Your task to perform on an android device: Open settings on Google Maps Image 0: 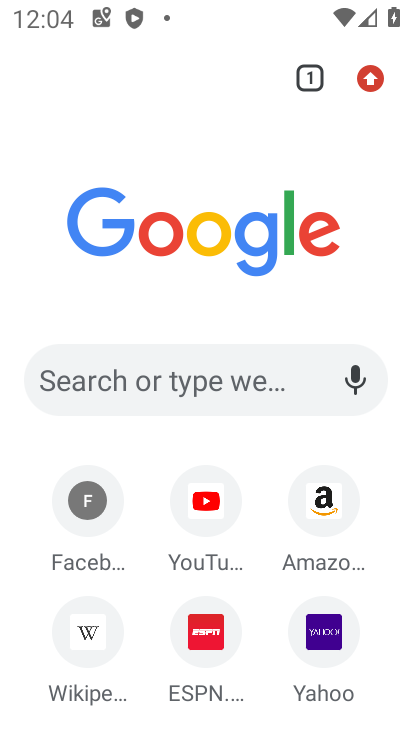
Step 0: press home button
Your task to perform on an android device: Open settings on Google Maps Image 1: 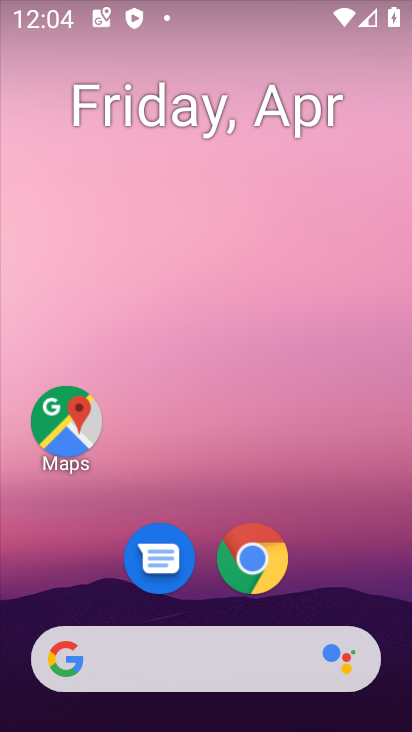
Step 1: drag from (399, 637) to (287, 25)
Your task to perform on an android device: Open settings on Google Maps Image 2: 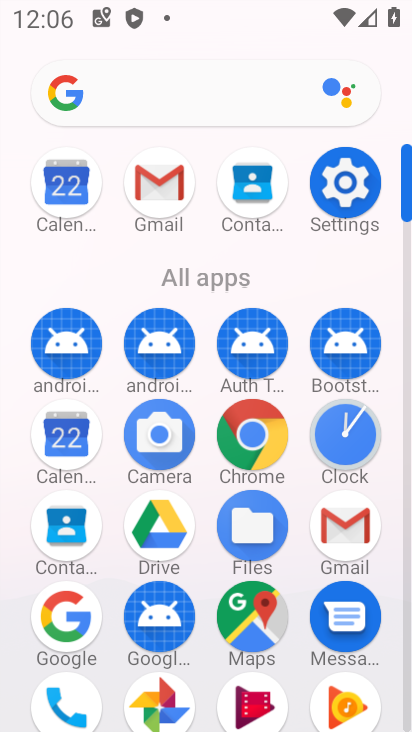
Step 2: click (252, 609)
Your task to perform on an android device: Open settings on Google Maps Image 3: 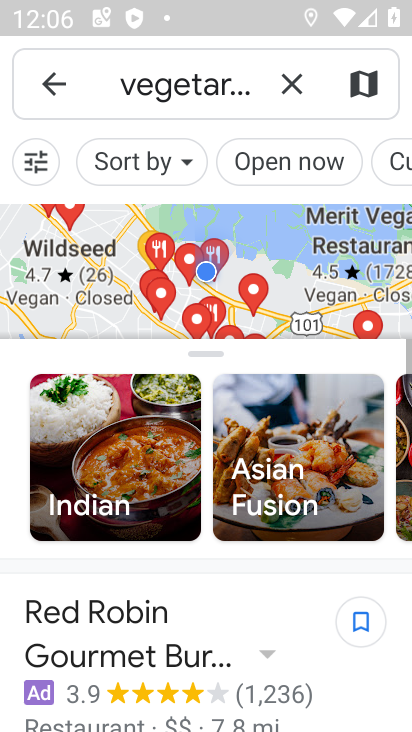
Step 3: click (299, 80)
Your task to perform on an android device: Open settings on Google Maps Image 4: 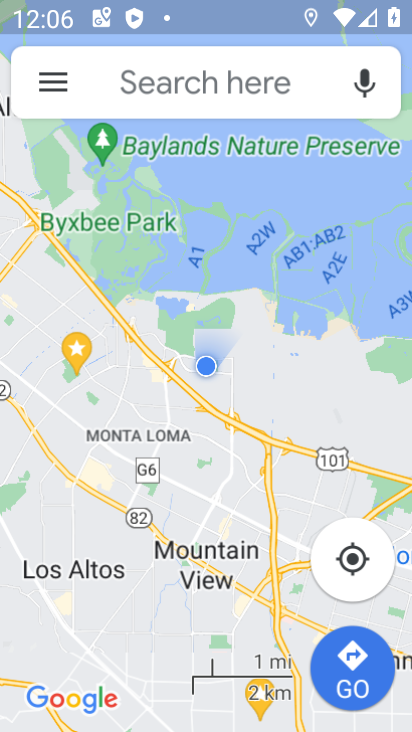
Step 4: click (36, 78)
Your task to perform on an android device: Open settings on Google Maps Image 5: 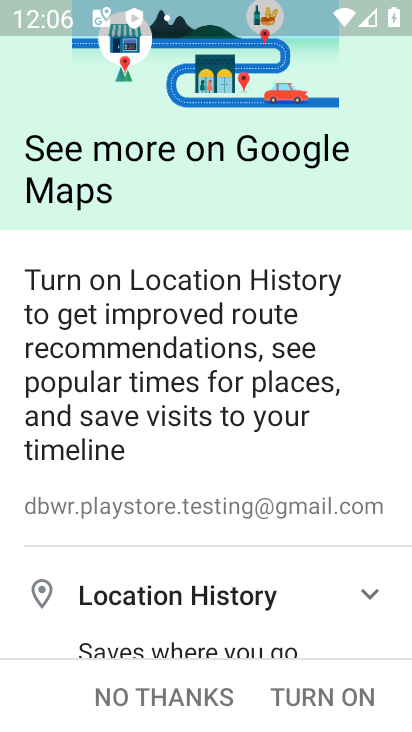
Step 5: click (148, 706)
Your task to perform on an android device: Open settings on Google Maps Image 6: 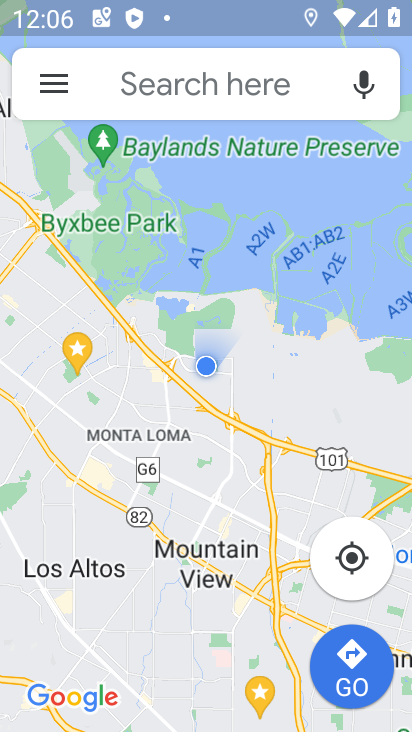
Step 6: click (55, 76)
Your task to perform on an android device: Open settings on Google Maps Image 7: 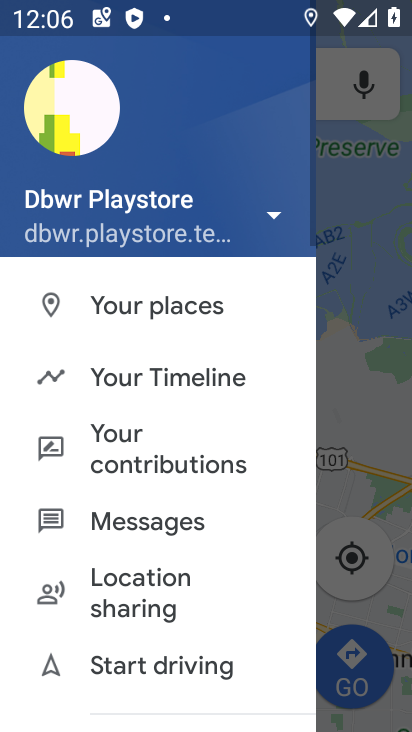
Step 7: drag from (113, 674) to (165, 140)
Your task to perform on an android device: Open settings on Google Maps Image 8: 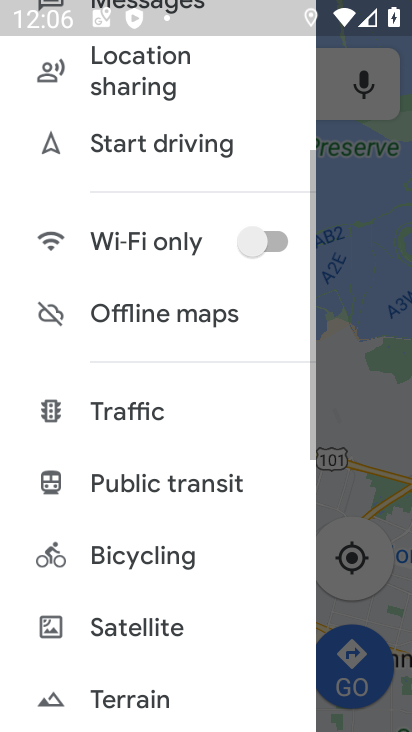
Step 8: drag from (160, 647) to (167, 183)
Your task to perform on an android device: Open settings on Google Maps Image 9: 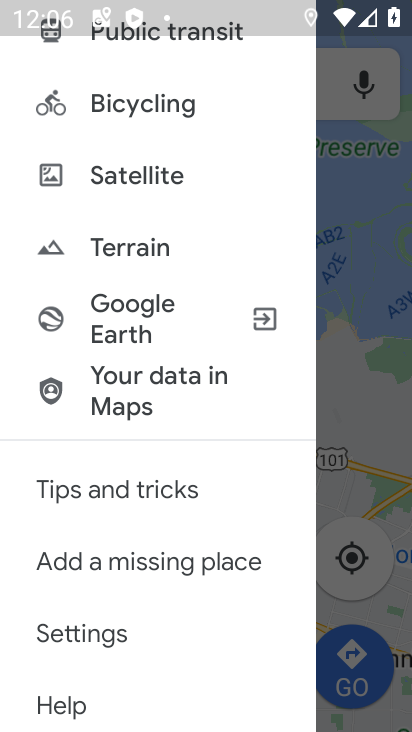
Step 9: click (129, 634)
Your task to perform on an android device: Open settings on Google Maps Image 10: 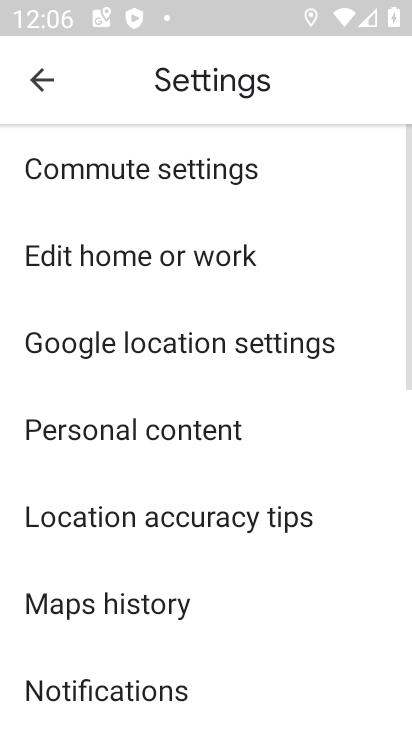
Step 10: task complete